Your task to perform on an android device: check android version Image 0: 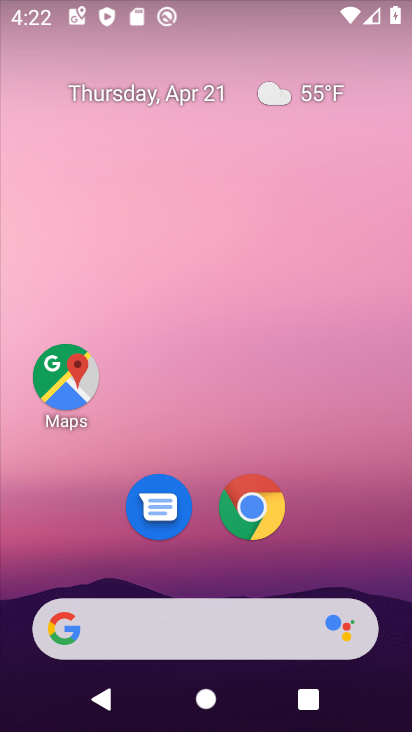
Step 0: drag from (357, 390) to (367, 176)
Your task to perform on an android device: check android version Image 1: 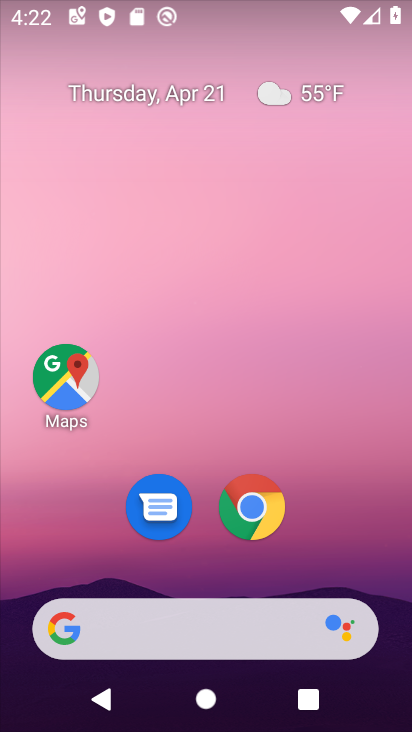
Step 1: drag from (307, 535) to (345, 45)
Your task to perform on an android device: check android version Image 2: 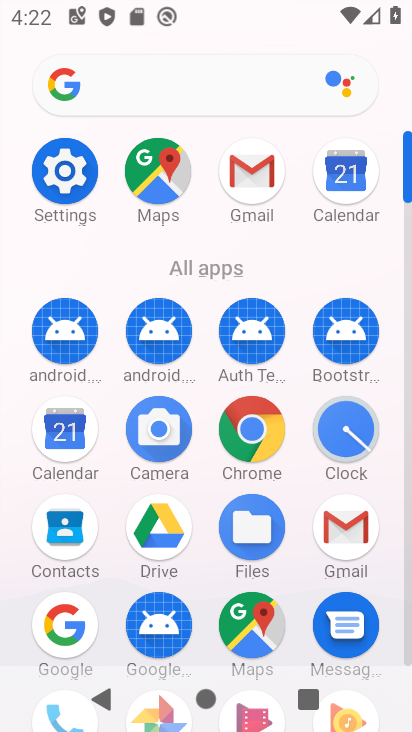
Step 2: click (74, 160)
Your task to perform on an android device: check android version Image 3: 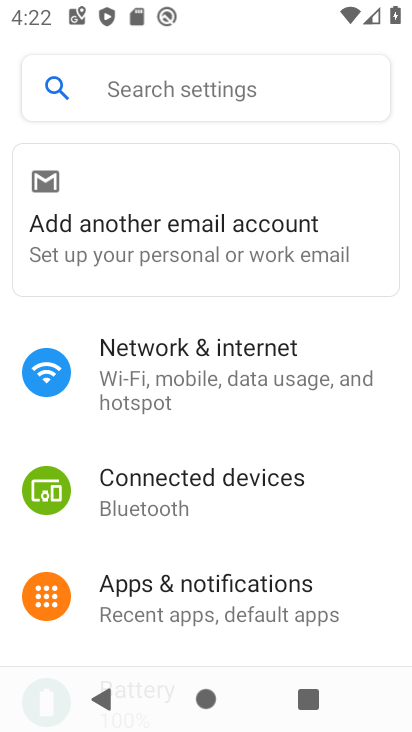
Step 3: drag from (139, 548) to (118, 230)
Your task to perform on an android device: check android version Image 4: 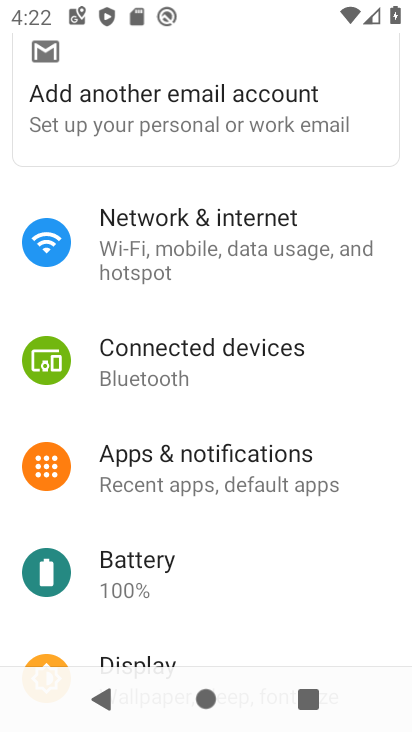
Step 4: drag from (176, 551) to (216, 220)
Your task to perform on an android device: check android version Image 5: 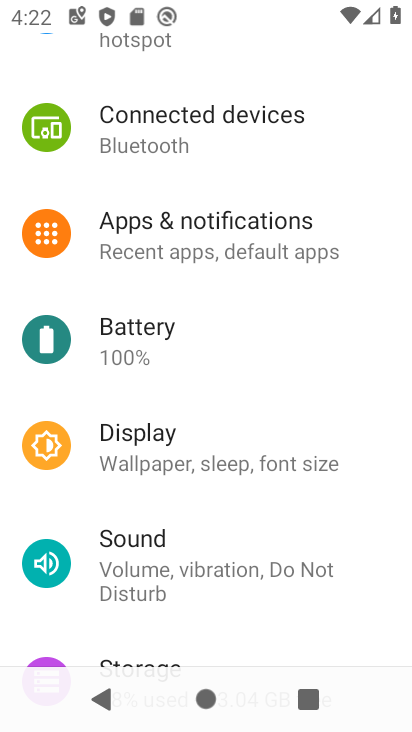
Step 5: drag from (257, 512) to (301, 196)
Your task to perform on an android device: check android version Image 6: 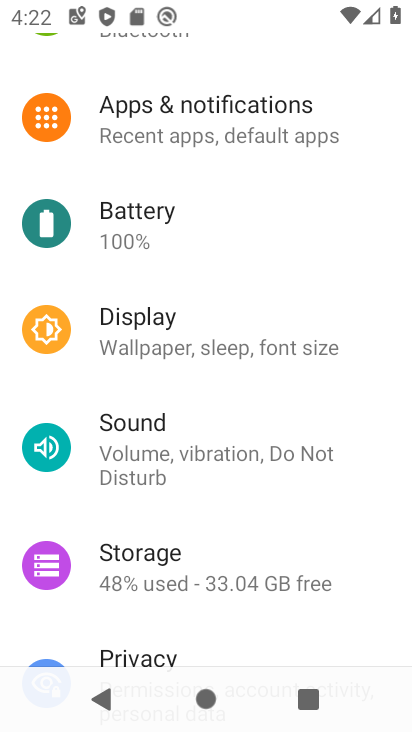
Step 6: drag from (277, 571) to (339, 235)
Your task to perform on an android device: check android version Image 7: 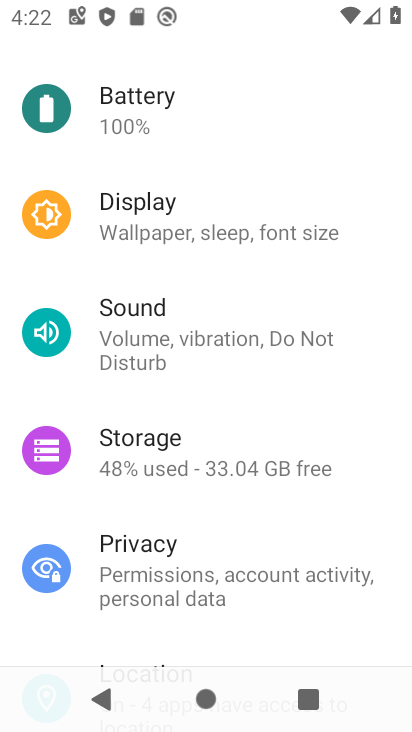
Step 7: drag from (313, 490) to (377, 232)
Your task to perform on an android device: check android version Image 8: 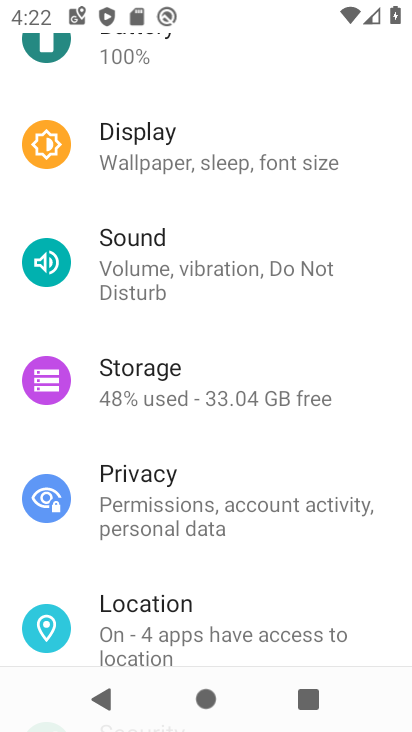
Step 8: drag from (235, 560) to (242, 230)
Your task to perform on an android device: check android version Image 9: 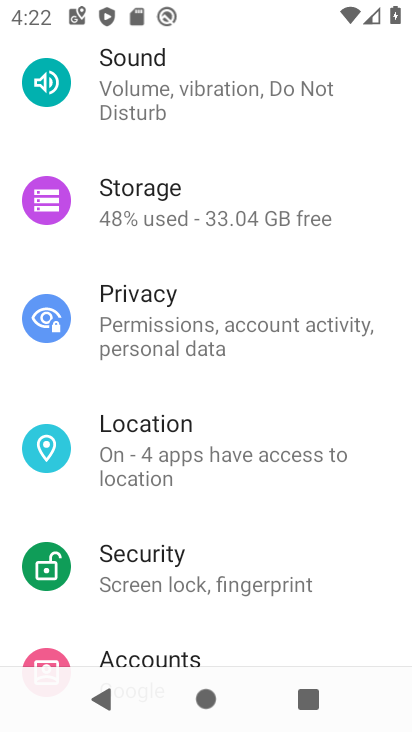
Step 9: drag from (221, 567) to (271, 224)
Your task to perform on an android device: check android version Image 10: 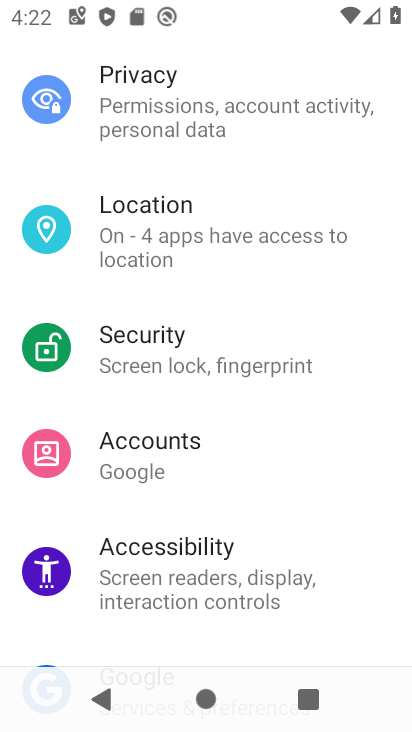
Step 10: drag from (271, 570) to (320, 206)
Your task to perform on an android device: check android version Image 11: 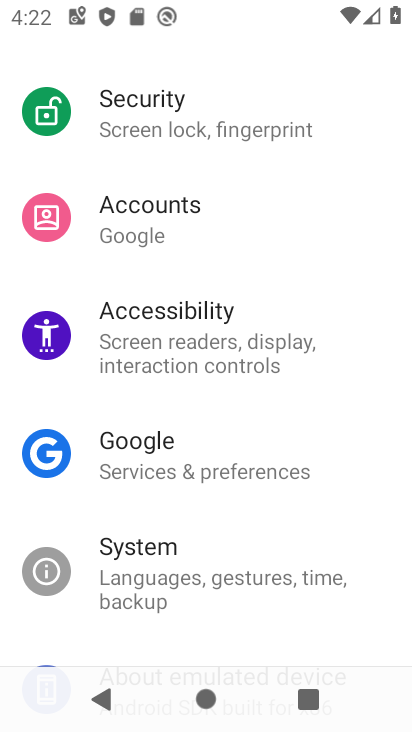
Step 11: drag from (266, 558) to (319, 189)
Your task to perform on an android device: check android version Image 12: 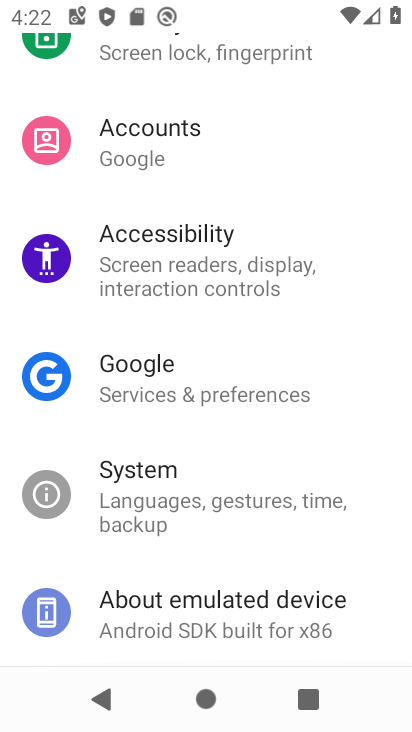
Step 12: drag from (316, 587) to (344, 212)
Your task to perform on an android device: check android version Image 13: 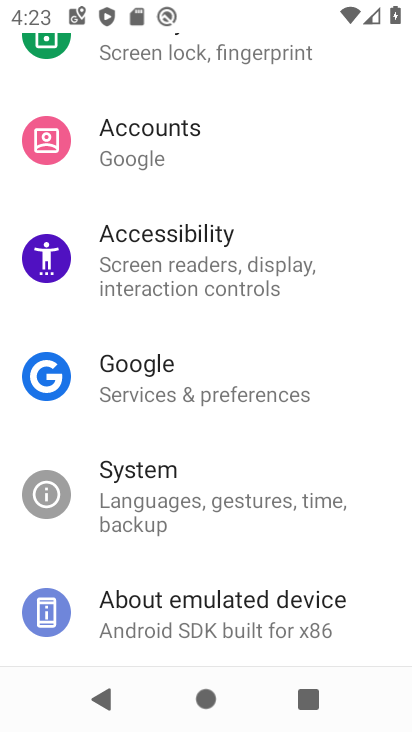
Step 13: click (197, 620)
Your task to perform on an android device: check android version Image 14: 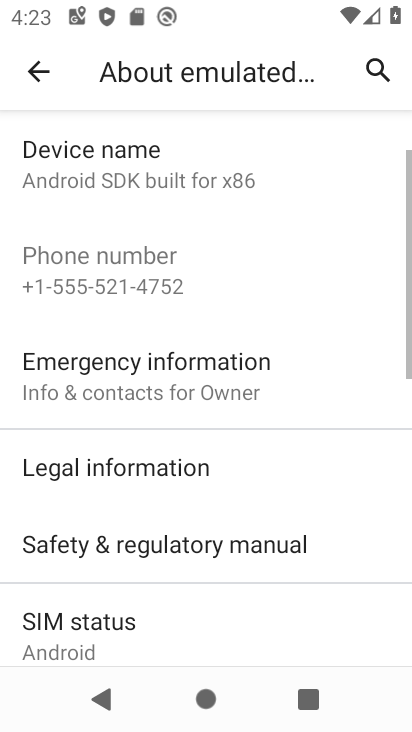
Step 14: drag from (246, 568) to (249, 182)
Your task to perform on an android device: check android version Image 15: 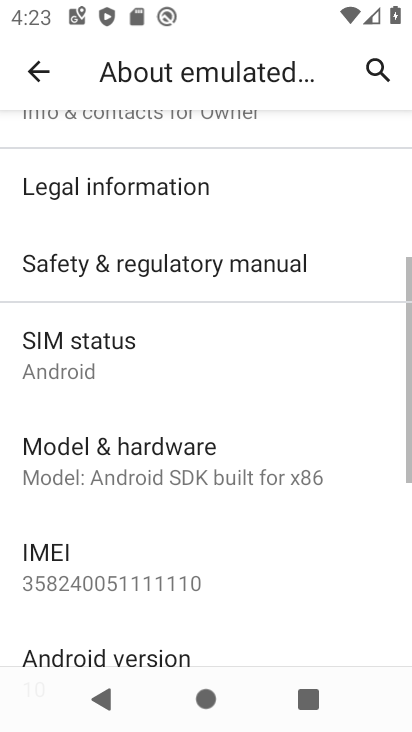
Step 15: drag from (247, 526) to (233, 299)
Your task to perform on an android device: check android version Image 16: 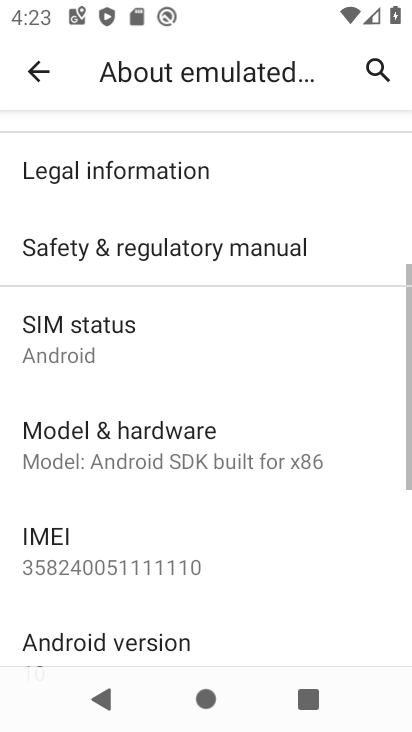
Step 16: drag from (146, 633) to (220, 260)
Your task to perform on an android device: check android version Image 17: 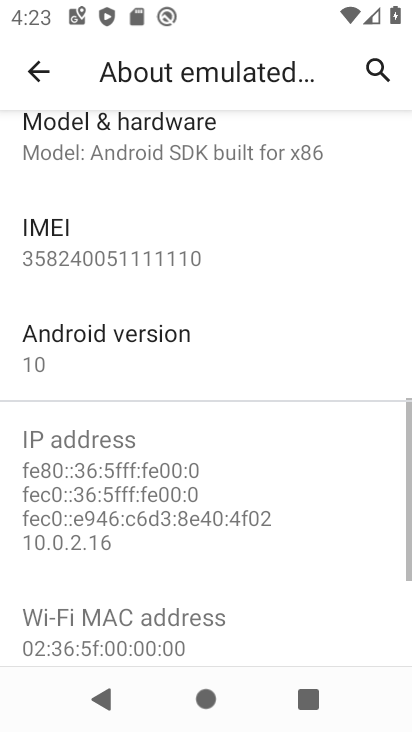
Step 17: click (72, 334)
Your task to perform on an android device: check android version Image 18: 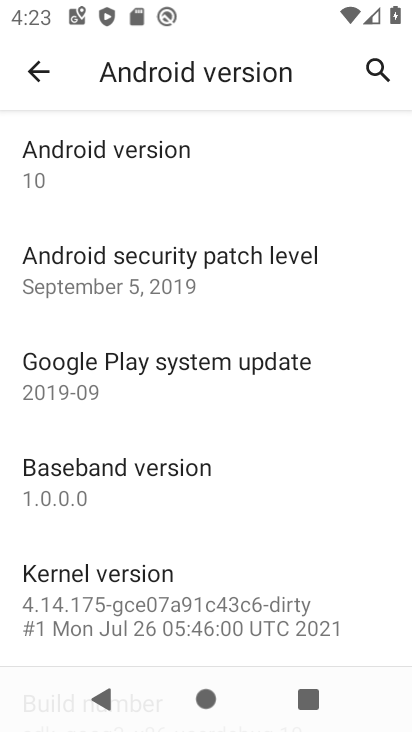
Step 18: click (92, 165)
Your task to perform on an android device: check android version Image 19: 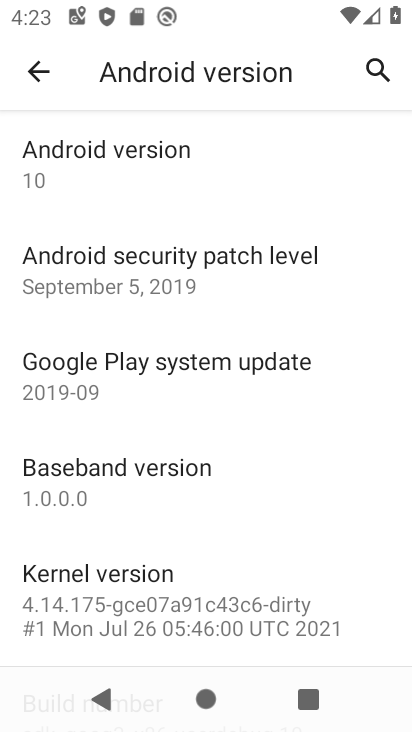
Step 19: click (90, 162)
Your task to perform on an android device: check android version Image 20: 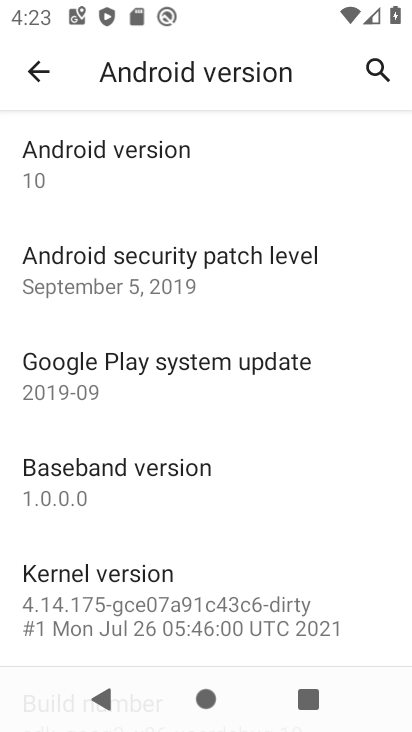
Step 20: task complete